Your task to perform on an android device: delete a single message in the gmail app Image 0: 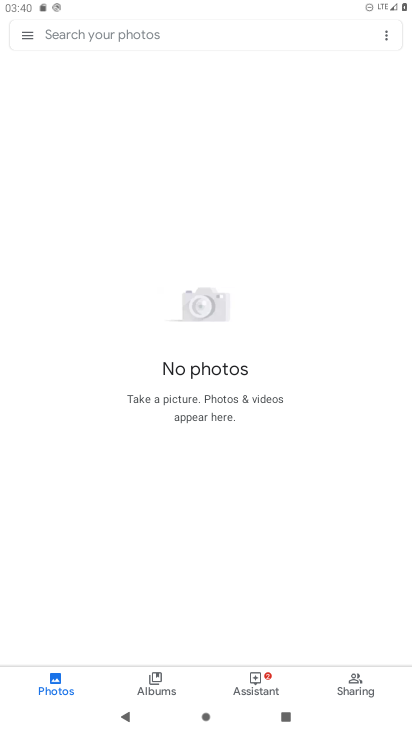
Step 0: press home button
Your task to perform on an android device: delete a single message in the gmail app Image 1: 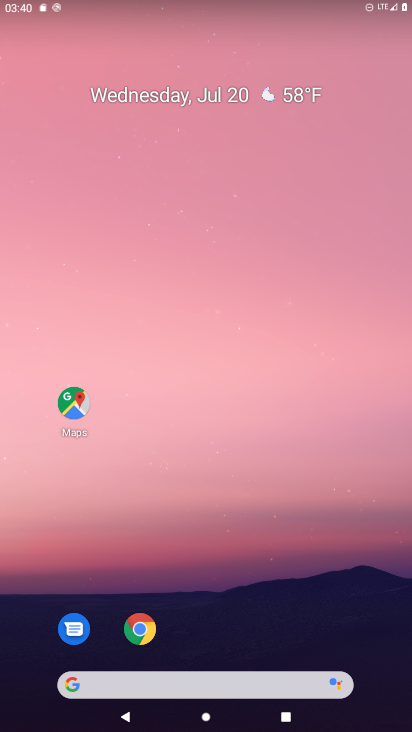
Step 1: drag from (232, 612) to (271, 84)
Your task to perform on an android device: delete a single message in the gmail app Image 2: 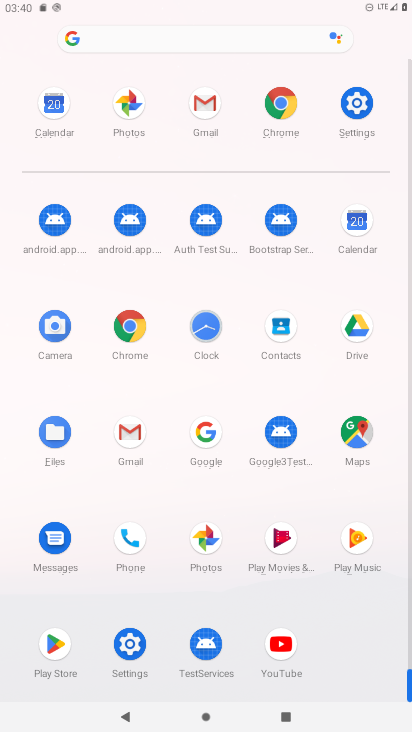
Step 2: click (122, 441)
Your task to perform on an android device: delete a single message in the gmail app Image 3: 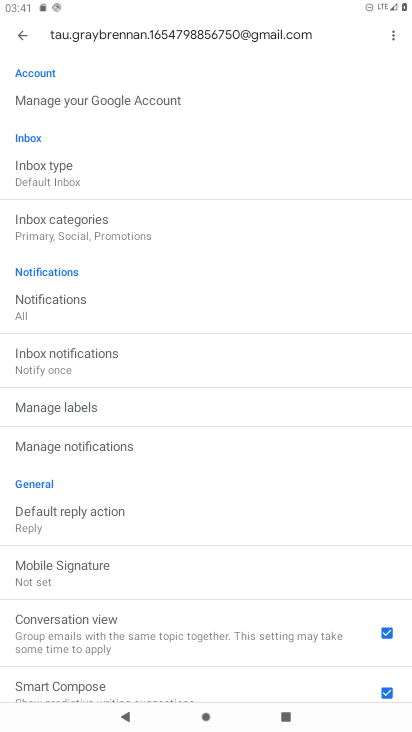
Step 3: click (11, 36)
Your task to perform on an android device: delete a single message in the gmail app Image 4: 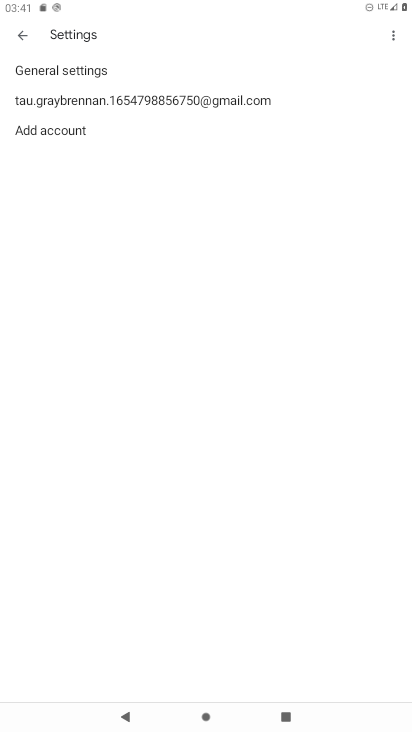
Step 4: click (11, 36)
Your task to perform on an android device: delete a single message in the gmail app Image 5: 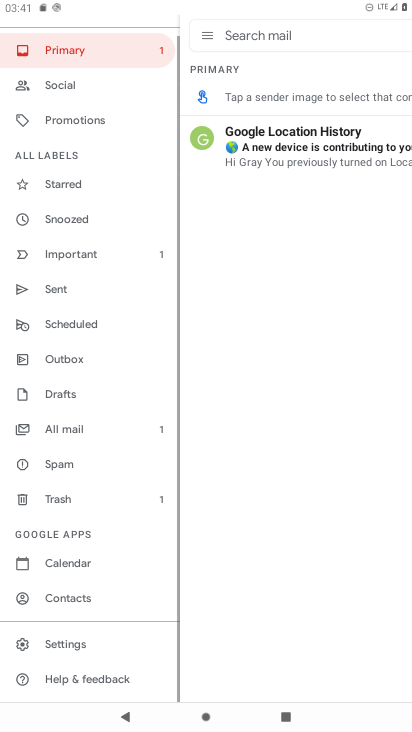
Step 5: click (237, 237)
Your task to perform on an android device: delete a single message in the gmail app Image 6: 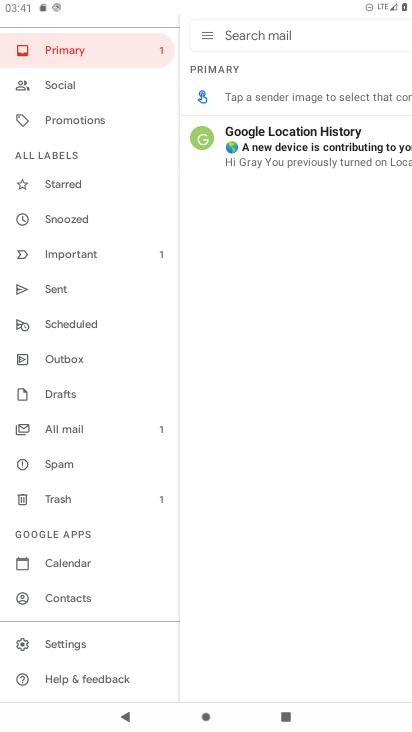
Step 6: click (204, 39)
Your task to perform on an android device: delete a single message in the gmail app Image 7: 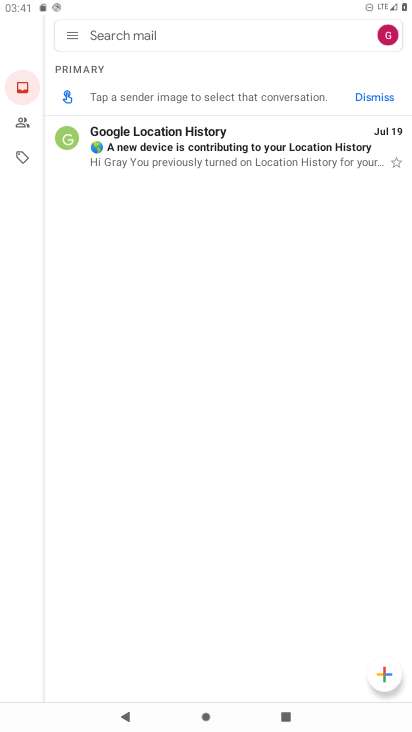
Step 7: click (235, 137)
Your task to perform on an android device: delete a single message in the gmail app Image 8: 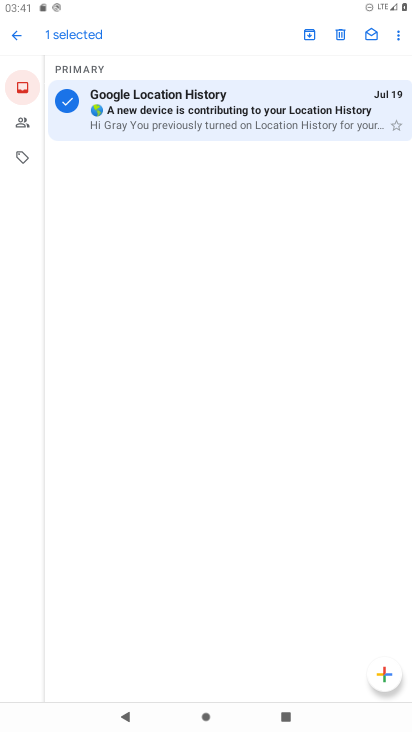
Step 8: click (341, 39)
Your task to perform on an android device: delete a single message in the gmail app Image 9: 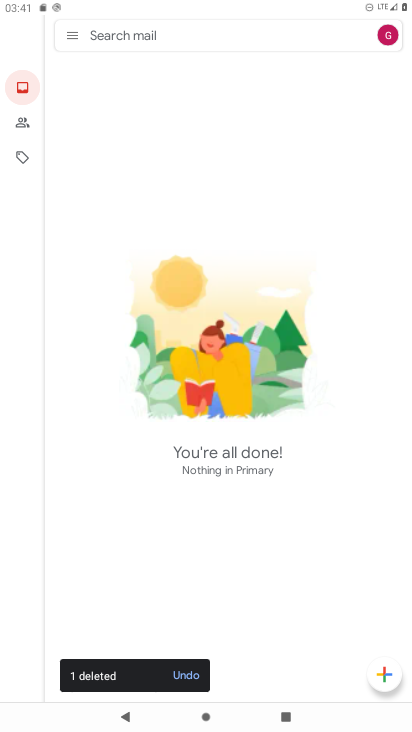
Step 9: task complete